Your task to perform on an android device: Open Youtube and go to the subscriptions tab Image 0: 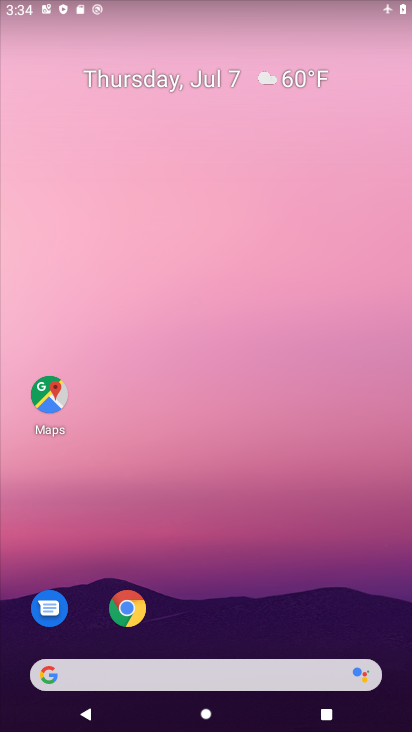
Step 0: drag from (193, 659) to (203, 20)
Your task to perform on an android device: Open Youtube and go to the subscriptions tab Image 1: 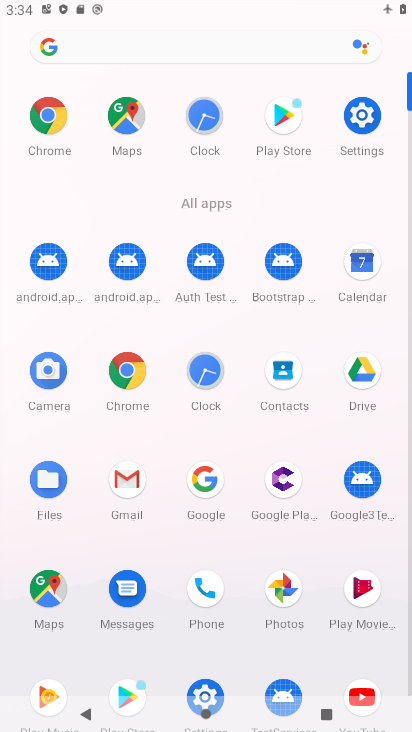
Step 1: drag from (312, 598) to (299, 159)
Your task to perform on an android device: Open Youtube and go to the subscriptions tab Image 2: 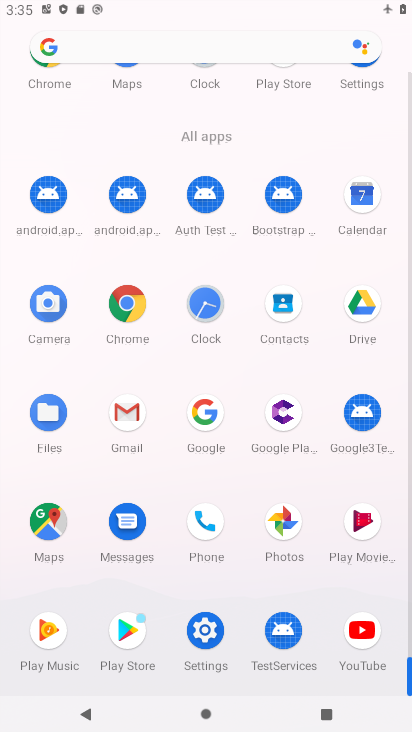
Step 2: click (358, 638)
Your task to perform on an android device: Open Youtube and go to the subscriptions tab Image 3: 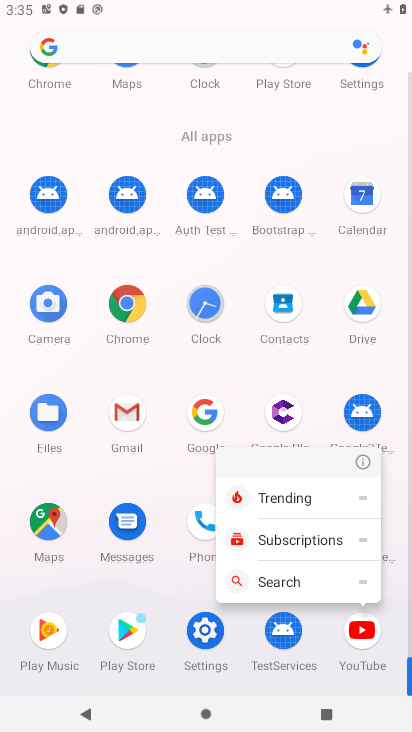
Step 3: click (281, 546)
Your task to perform on an android device: Open Youtube and go to the subscriptions tab Image 4: 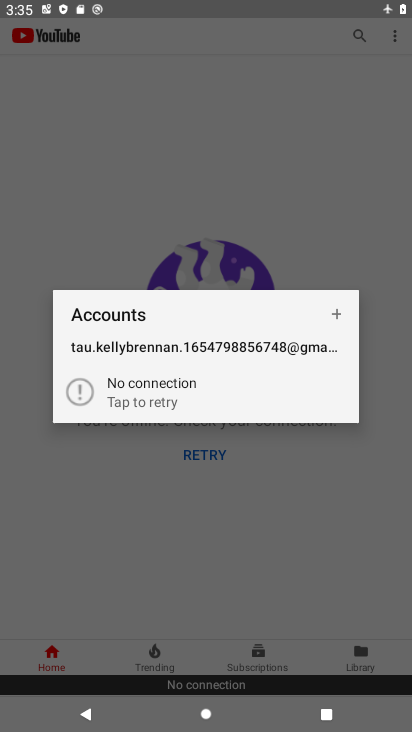
Step 4: task complete